Your task to perform on an android device: turn on priority inbox in the gmail app Image 0: 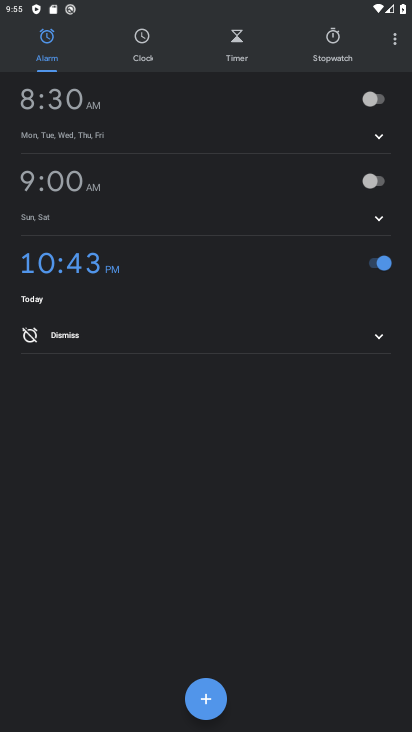
Step 0: press home button
Your task to perform on an android device: turn on priority inbox in the gmail app Image 1: 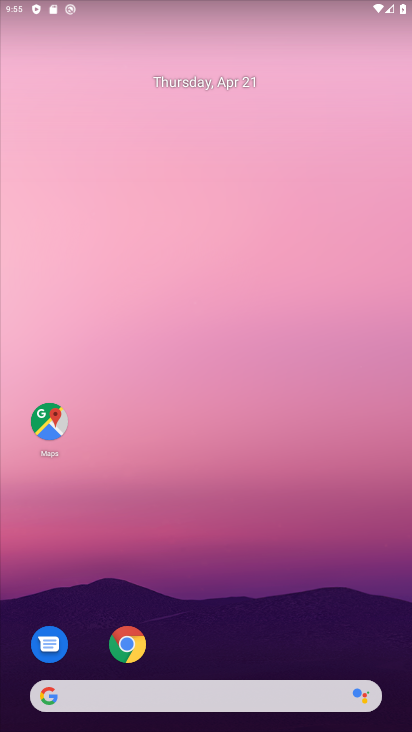
Step 1: drag from (196, 502) to (265, 87)
Your task to perform on an android device: turn on priority inbox in the gmail app Image 2: 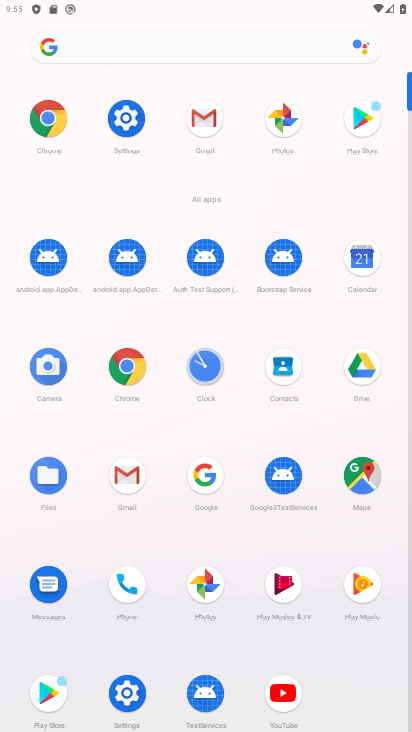
Step 2: click (205, 125)
Your task to perform on an android device: turn on priority inbox in the gmail app Image 3: 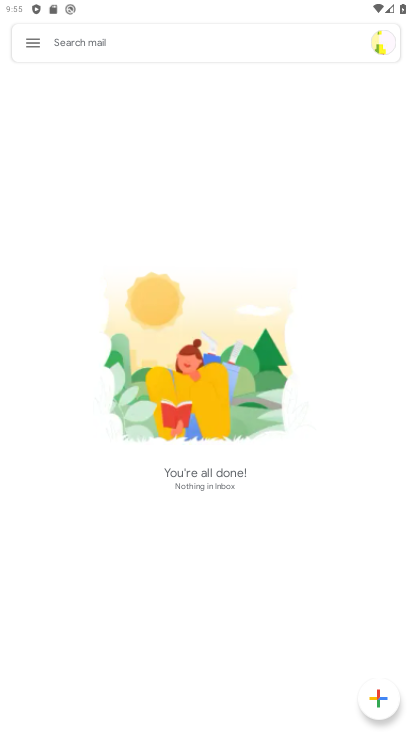
Step 3: click (38, 42)
Your task to perform on an android device: turn on priority inbox in the gmail app Image 4: 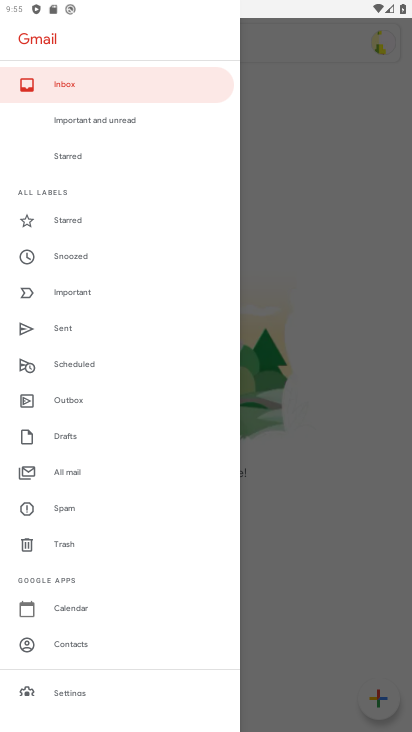
Step 4: click (78, 691)
Your task to perform on an android device: turn on priority inbox in the gmail app Image 5: 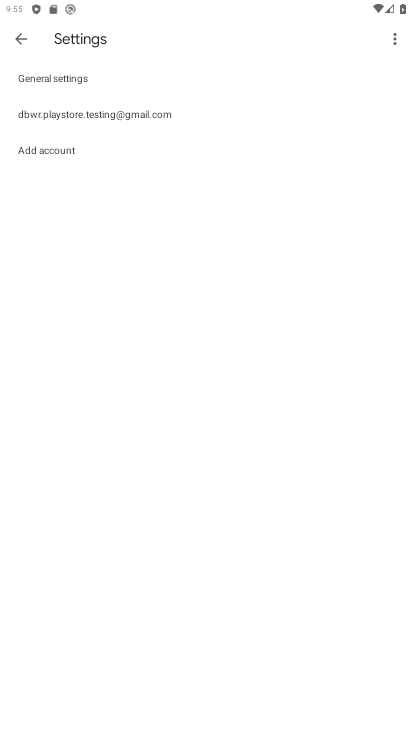
Step 5: click (89, 110)
Your task to perform on an android device: turn on priority inbox in the gmail app Image 6: 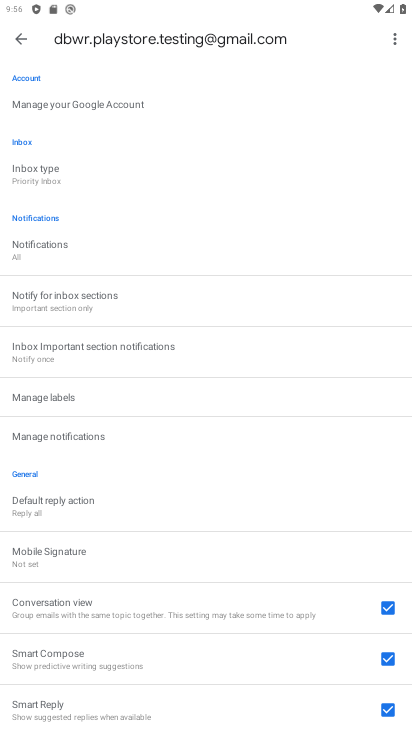
Step 6: click (56, 178)
Your task to perform on an android device: turn on priority inbox in the gmail app Image 7: 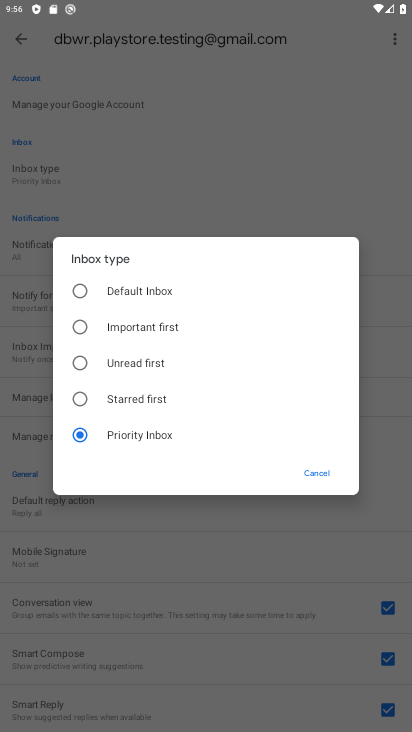
Step 7: task complete